Your task to perform on an android device: turn off wifi Image 0: 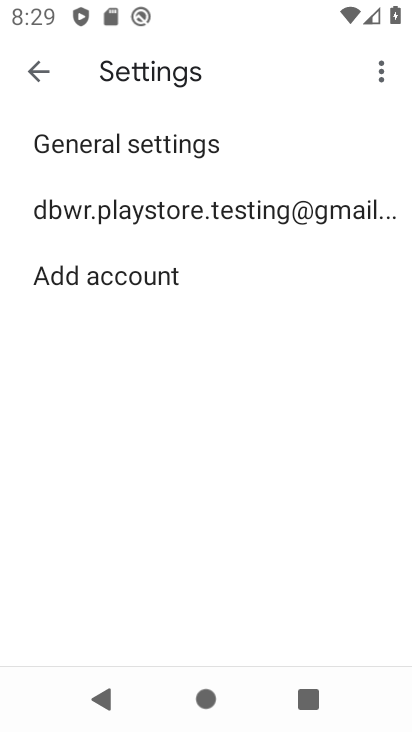
Step 0: press home button
Your task to perform on an android device: turn off wifi Image 1: 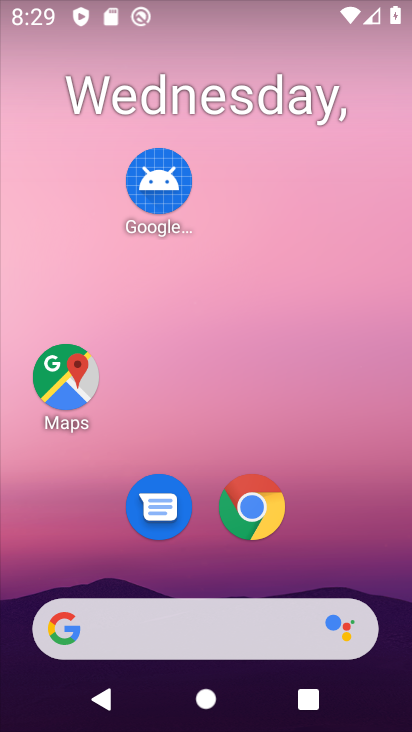
Step 1: drag from (230, 572) to (205, 3)
Your task to perform on an android device: turn off wifi Image 2: 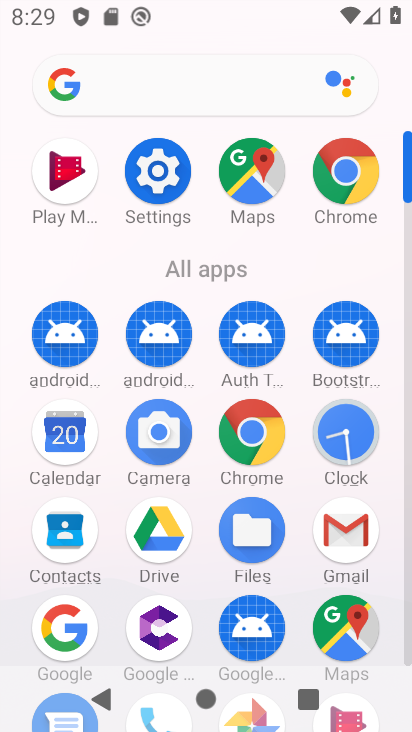
Step 2: click (162, 171)
Your task to perform on an android device: turn off wifi Image 3: 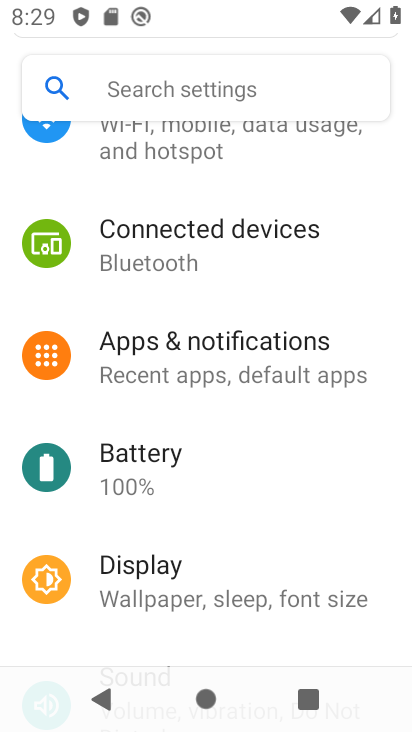
Step 3: drag from (188, 194) to (201, 512)
Your task to perform on an android device: turn off wifi Image 4: 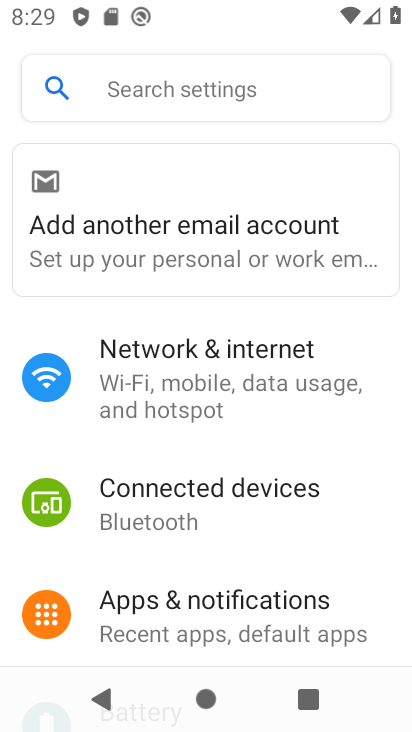
Step 4: click (191, 365)
Your task to perform on an android device: turn off wifi Image 5: 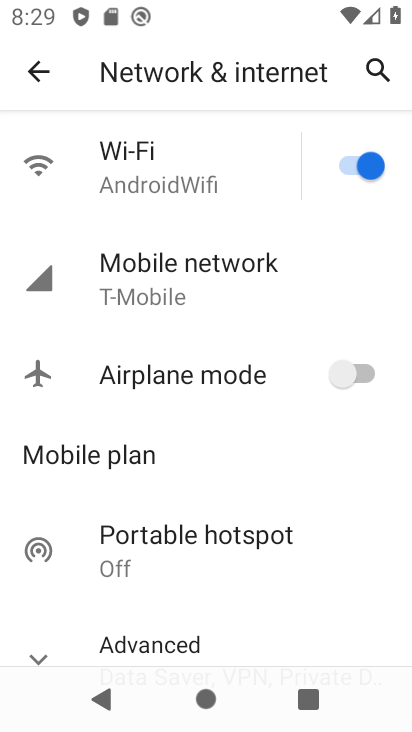
Step 5: click (350, 168)
Your task to perform on an android device: turn off wifi Image 6: 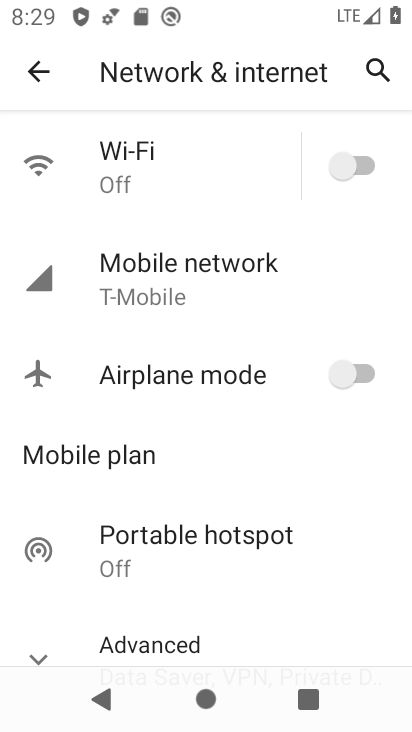
Step 6: task complete